Your task to perform on an android device: delete a single message in the gmail app Image 0: 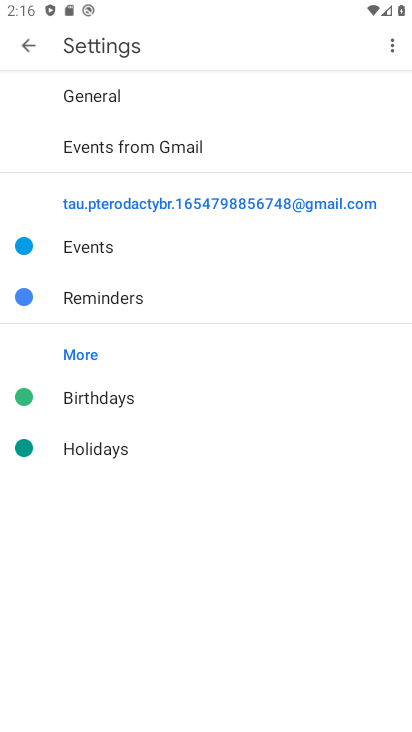
Step 0: press back button
Your task to perform on an android device: delete a single message in the gmail app Image 1: 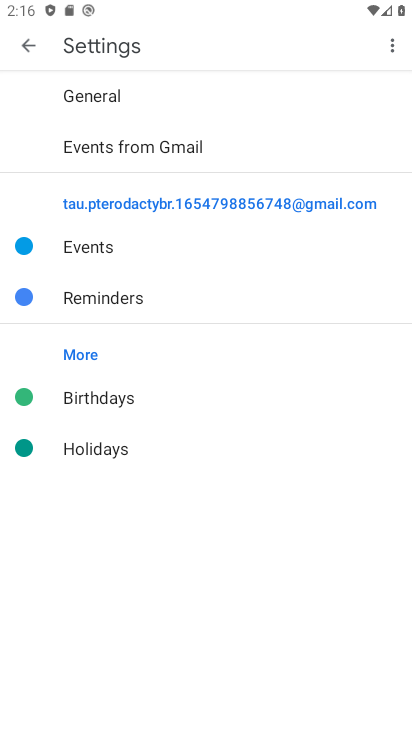
Step 1: press back button
Your task to perform on an android device: delete a single message in the gmail app Image 2: 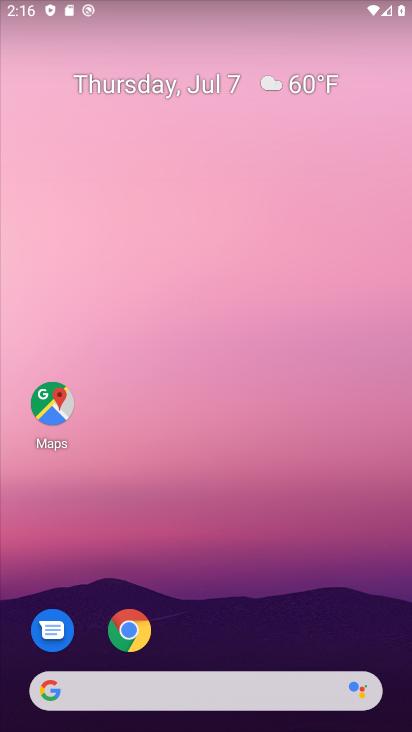
Step 2: drag from (225, 691) to (165, 208)
Your task to perform on an android device: delete a single message in the gmail app Image 3: 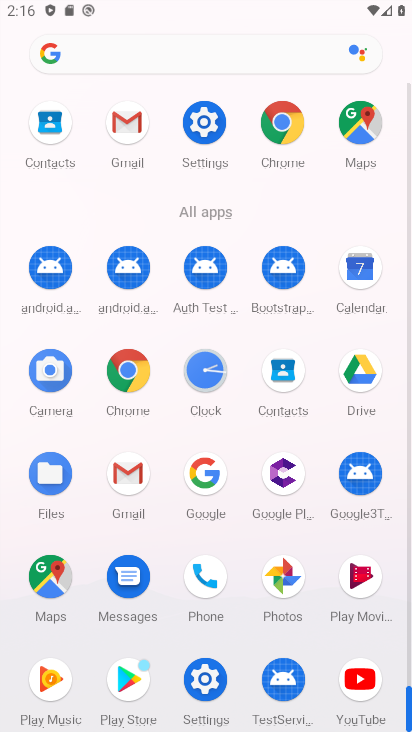
Step 3: click (123, 466)
Your task to perform on an android device: delete a single message in the gmail app Image 4: 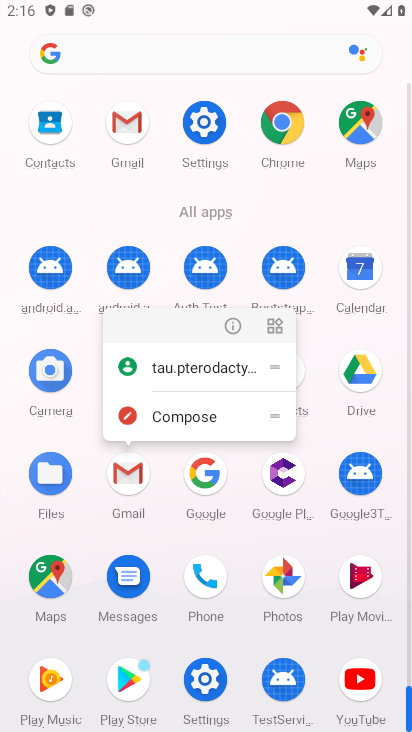
Step 4: click (133, 457)
Your task to perform on an android device: delete a single message in the gmail app Image 5: 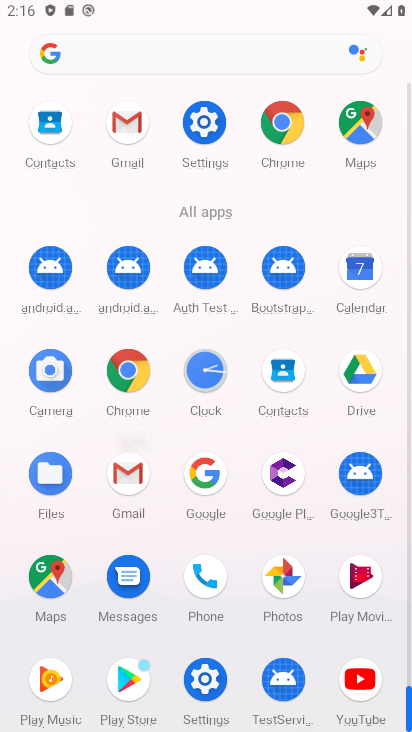
Step 5: click (131, 456)
Your task to perform on an android device: delete a single message in the gmail app Image 6: 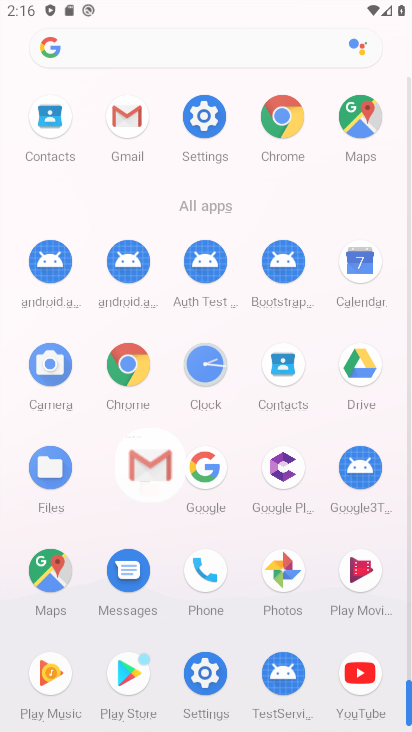
Step 6: click (130, 455)
Your task to perform on an android device: delete a single message in the gmail app Image 7: 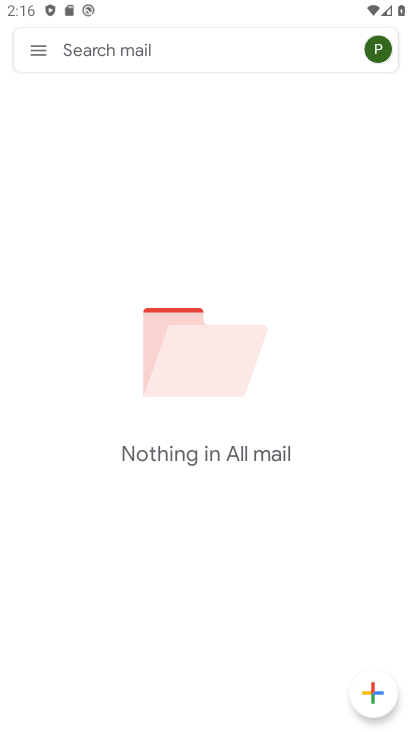
Step 7: click (31, 60)
Your task to perform on an android device: delete a single message in the gmail app Image 8: 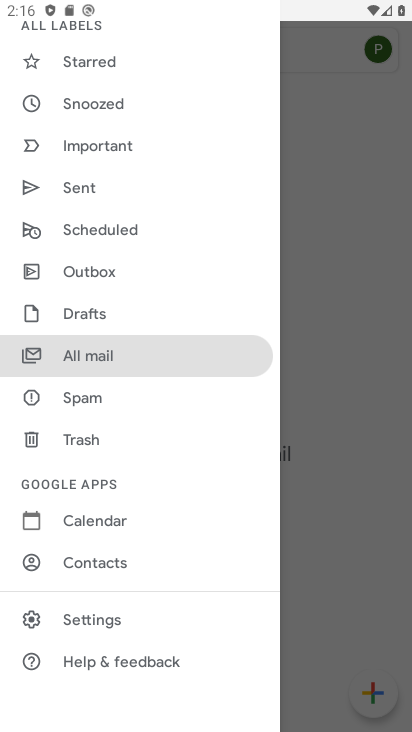
Step 8: click (218, 359)
Your task to perform on an android device: delete a single message in the gmail app Image 9: 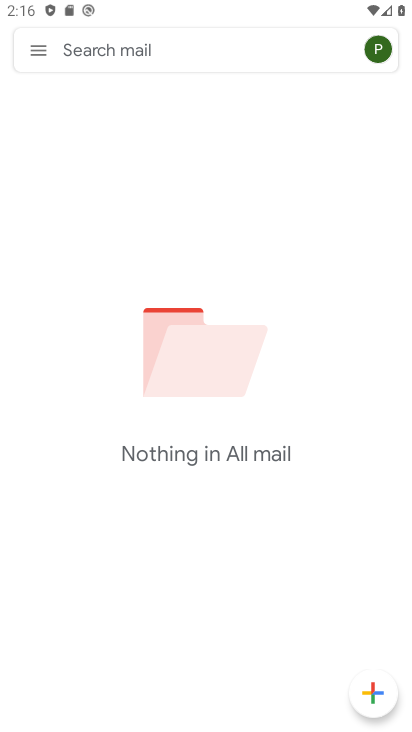
Step 9: click (221, 358)
Your task to perform on an android device: delete a single message in the gmail app Image 10: 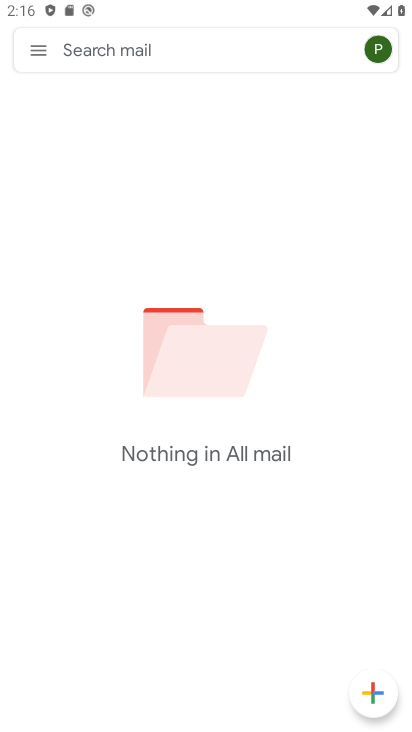
Step 10: task complete